Your task to perform on an android device: turn pop-ups off in chrome Image 0: 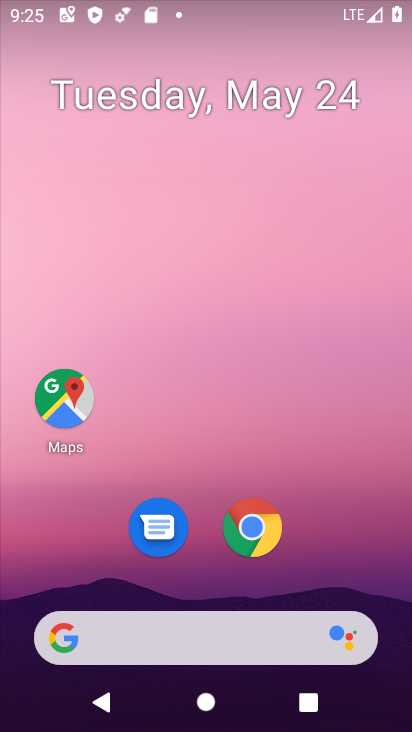
Step 0: click (247, 524)
Your task to perform on an android device: turn pop-ups off in chrome Image 1: 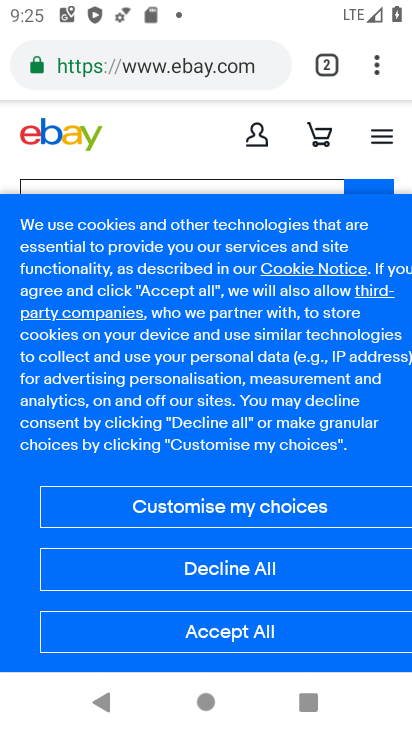
Step 1: click (373, 53)
Your task to perform on an android device: turn pop-ups off in chrome Image 2: 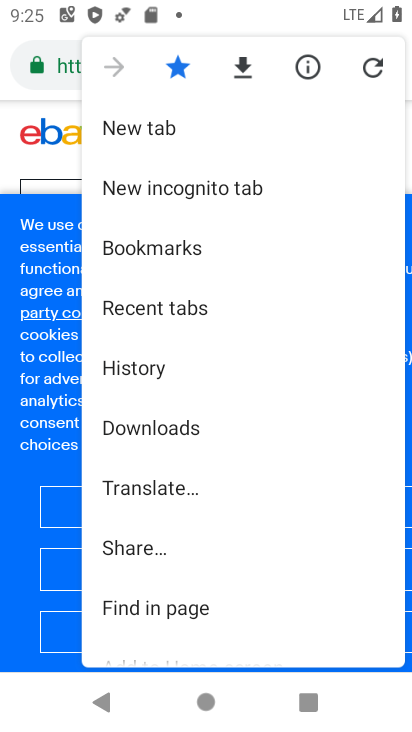
Step 2: drag from (199, 611) to (228, 153)
Your task to perform on an android device: turn pop-ups off in chrome Image 3: 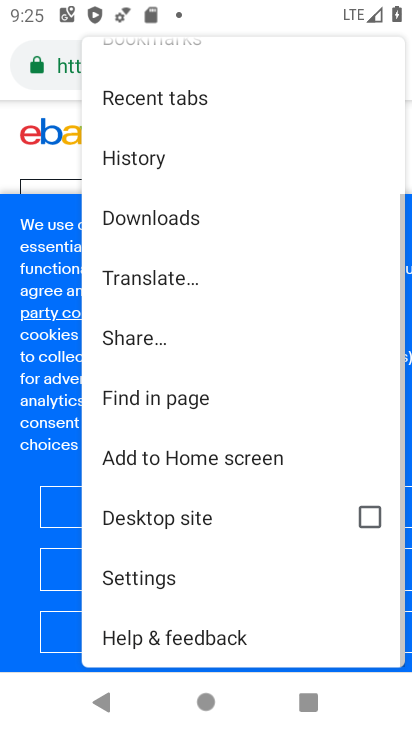
Step 3: click (164, 563)
Your task to perform on an android device: turn pop-ups off in chrome Image 4: 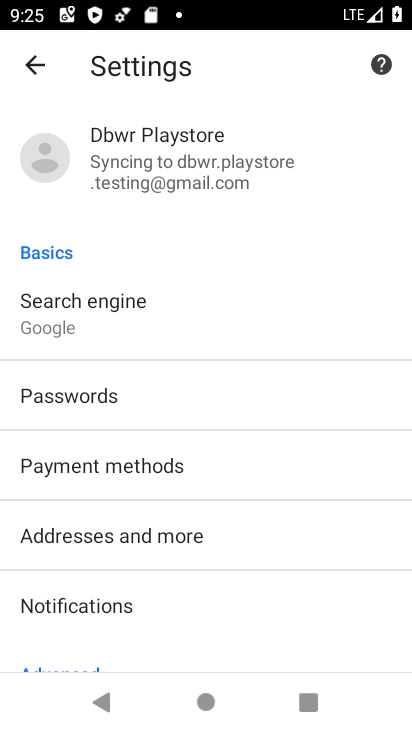
Step 4: drag from (182, 538) to (241, 154)
Your task to perform on an android device: turn pop-ups off in chrome Image 5: 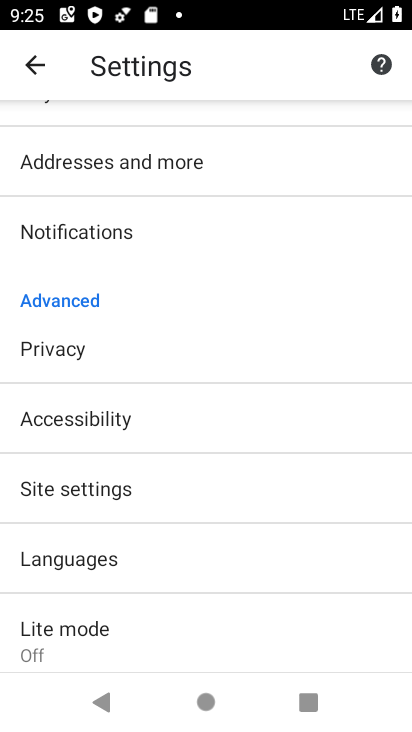
Step 5: click (135, 491)
Your task to perform on an android device: turn pop-ups off in chrome Image 6: 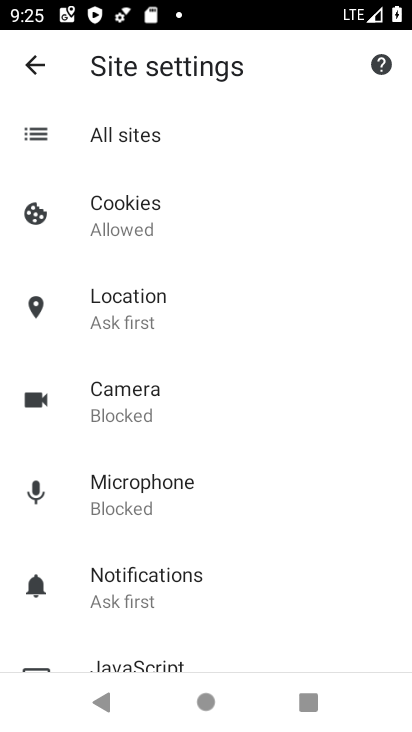
Step 6: drag from (218, 595) to (234, 262)
Your task to perform on an android device: turn pop-ups off in chrome Image 7: 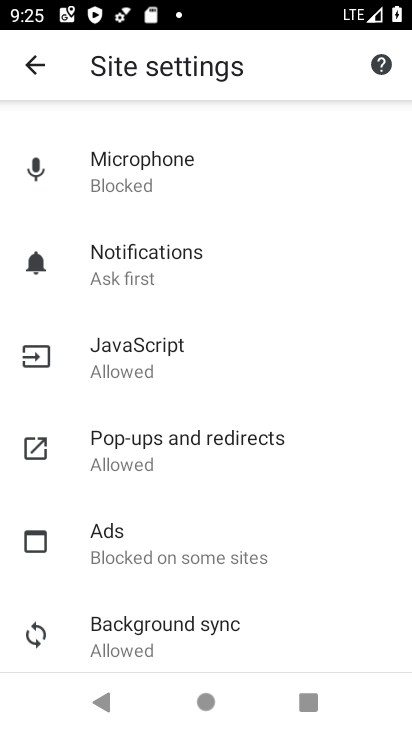
Step 7: click (178, 451)
Your task to perform on an android device: turn pop-ups off in chrome Image 8: 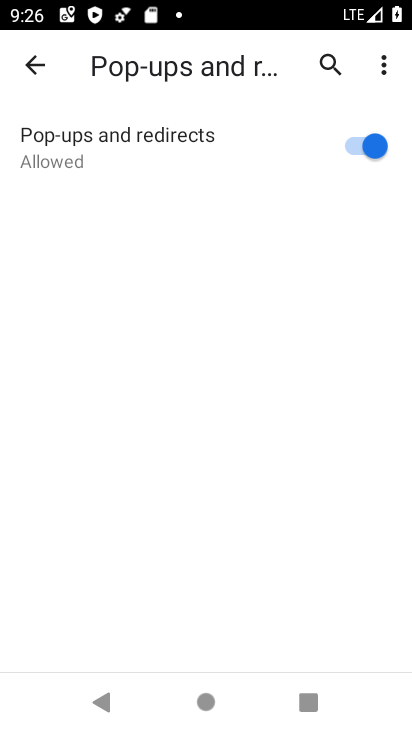
Step 8: click (353, 146)
Your task to perform on an android device: turn pop-ups off in chrome Image 9: 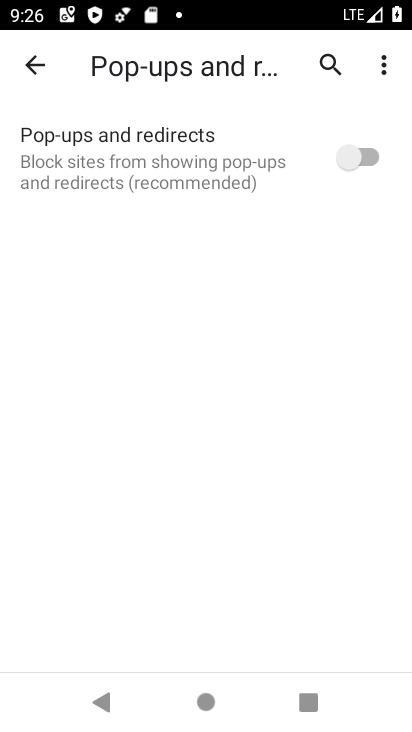
Step 9: task complete